Your task to perform on an android device: turn on priority inbox in the gmail app Image 0: 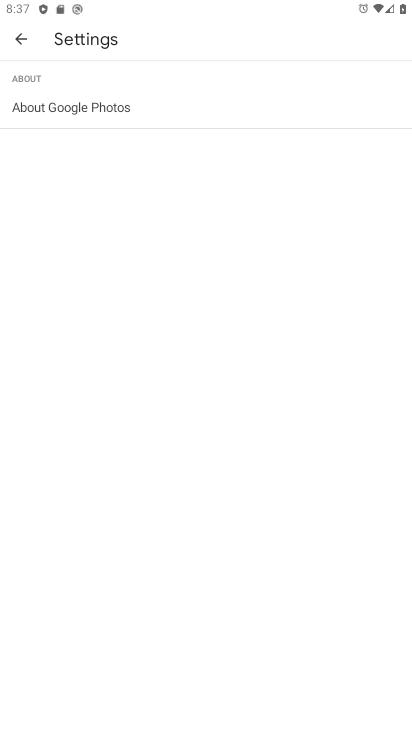
Step 0: press home button
Your task to perform on an android device: turn on priority inbox in the gmail app Image 1: 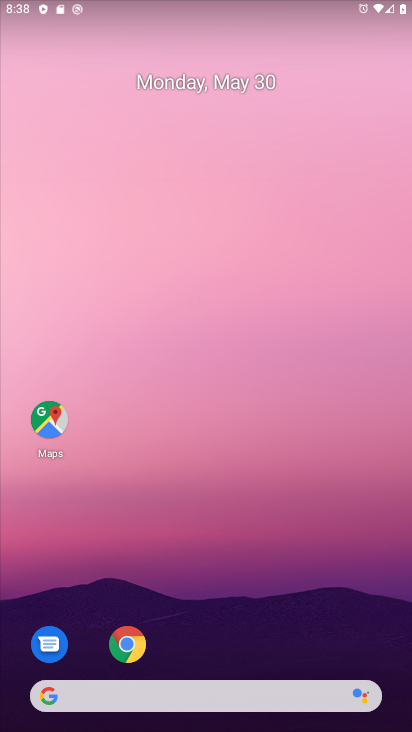
Step 1: drag from (372, 639) to (298, 74)
Your task to perform on an android device: turn on priority inbox in the gmail app Image 2: 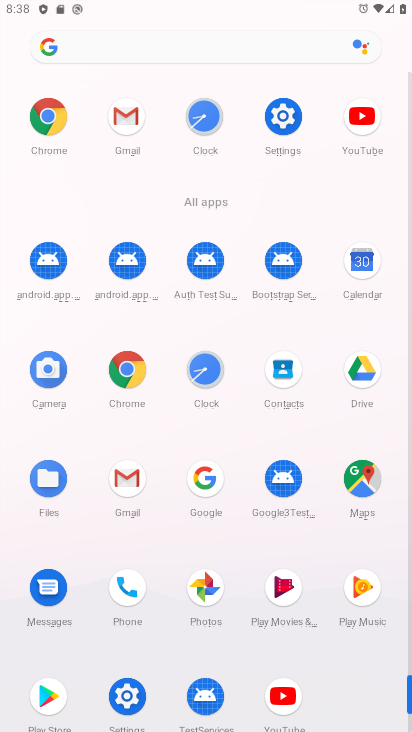
Step 2: click (126, 479)
Your task to perform on an android device: turn on priority inbox in the gmail app Image 3: 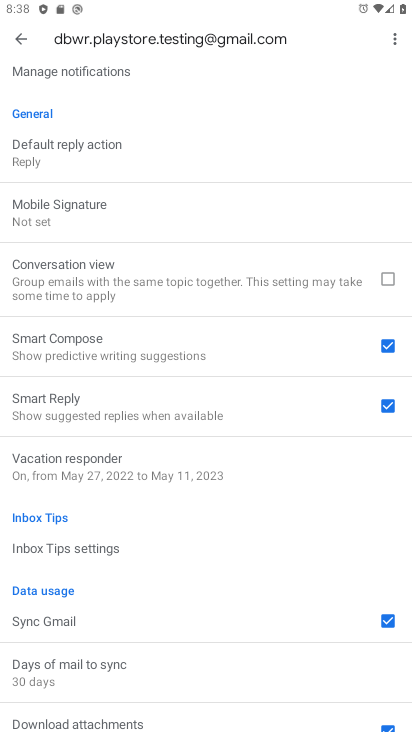
Step 3: click (127, 471)
Your task to perform on an android device: turn on priority inbox in the gmail app Image 4: 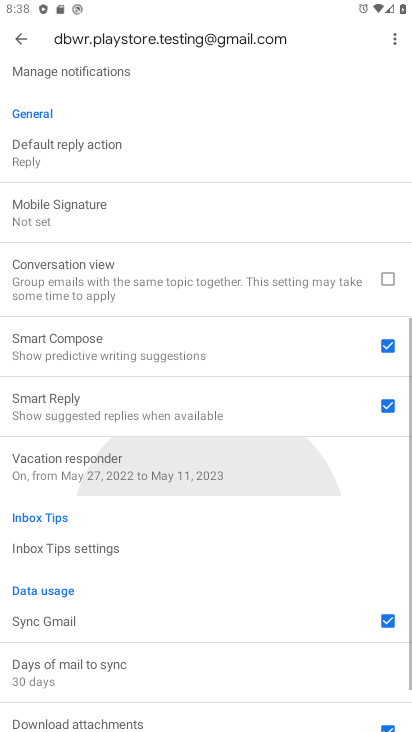
Step 4: drag from (128, 470) to (171, 524)
Your task to perform on an android device: turn on priority inbox in the gmail app Image 5: 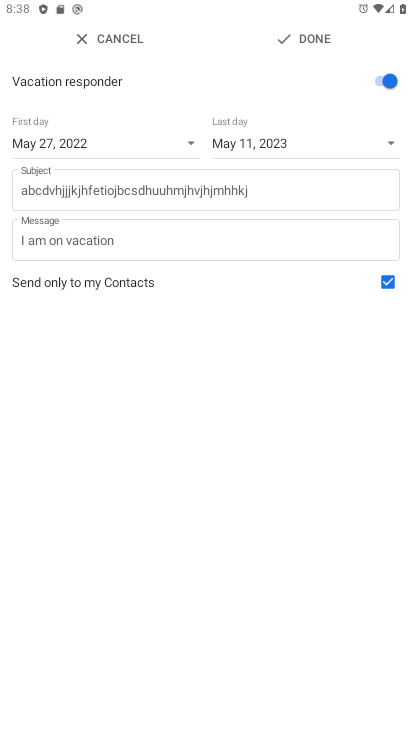
Step 5: click (82, 37)
Your task to perform on an android device: turn on priority inbox in the gmail app Image 6: 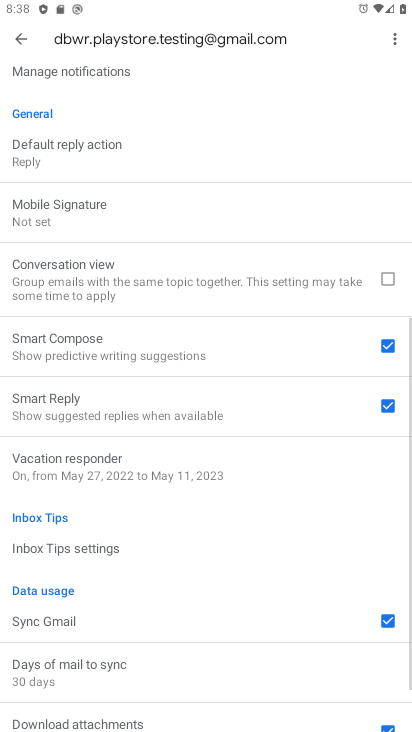
Step 6: drag from (207, 144) to (202, 371)
Your task to perform on an android device: turn on priority inbox in the gmail app Image 7: 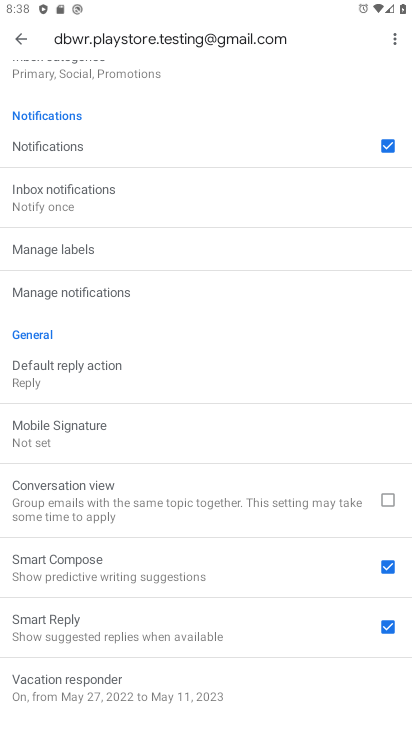
Step 7: drag from (225, 205) to (213, 491)
Your task to perform on an android device: turn on priority inbox in the gmail app Image 8: 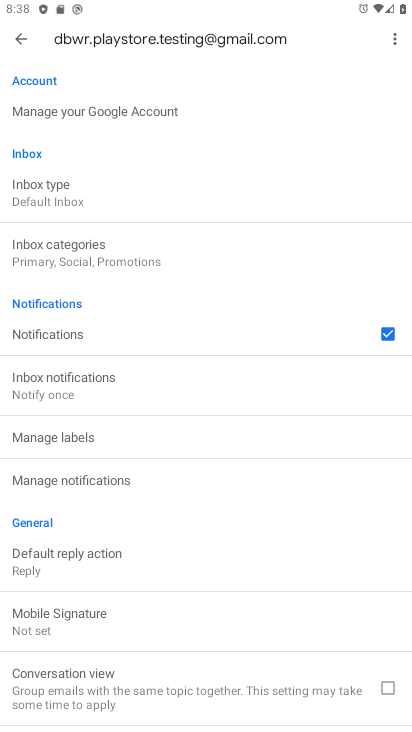
Step 8: click (35, 187)
Your task to perform on an android device: turn on priority inbox in the gmail app Image 9: 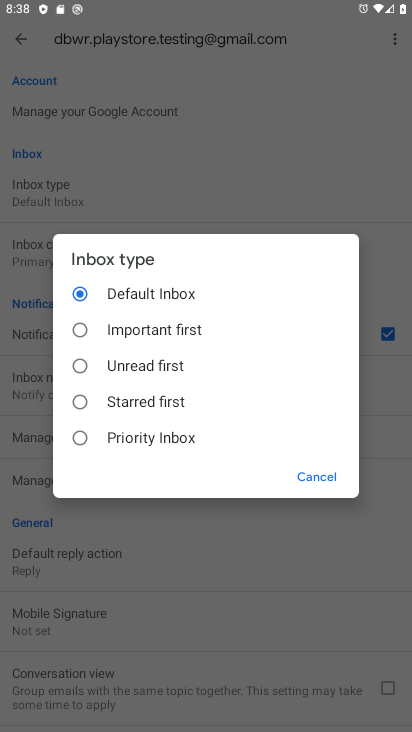
Step 9: click (85, 439)
Your task to perform on an android device: turn on priority inbox in the gmail app Image 10: 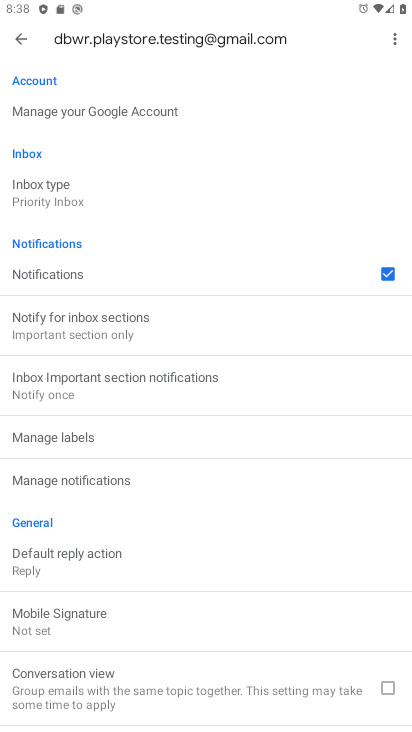
Step 10: task complete